Your task to perform on an android device: Open CNN.com Image 0: 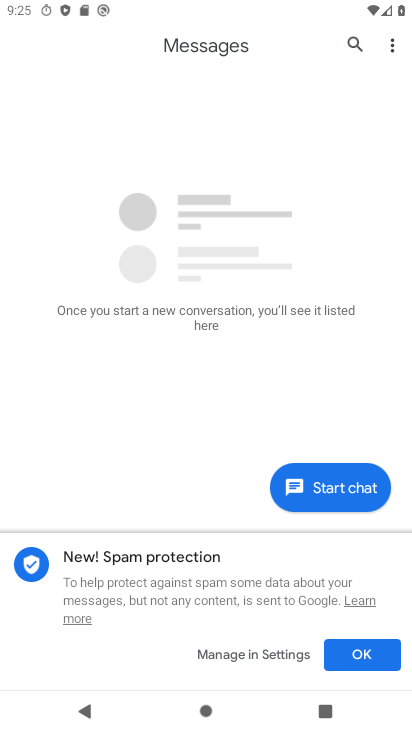
Step 0: press home button
Your task to perform on an android device: Open CNN.com Image 1: 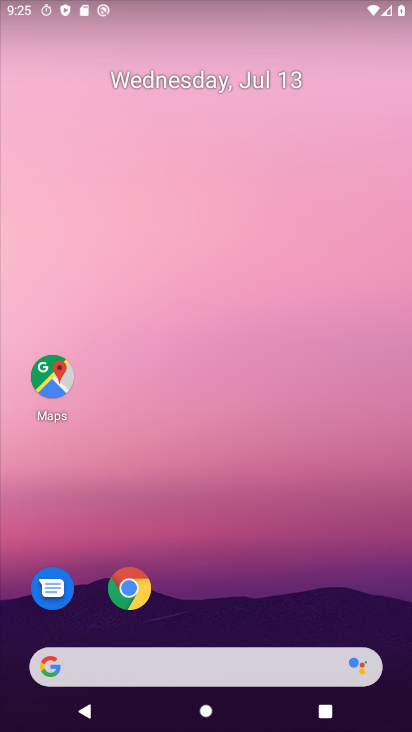
Step 1: click (128, 587)
Your task to perform on an android device: Open CNN.com Image 2: 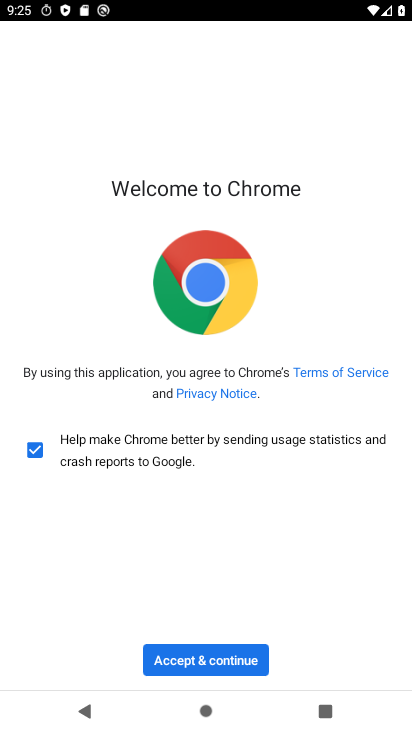
Step 2: click (200, 663)
Your task to perform on an android device: Open CNN.com Image 3: 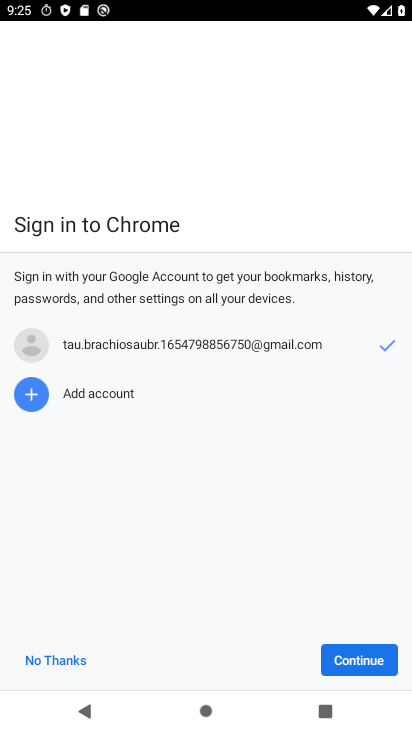
Step 3: click (361, 653)
Your task to perform on an android device: Open CNN.com Image 4: 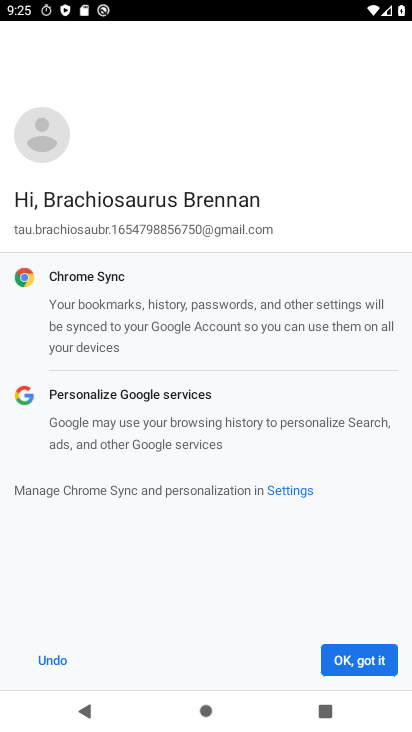
Step 4: click (361, 653)
Your task to perform on an android device: Open CNN.com Image 5: 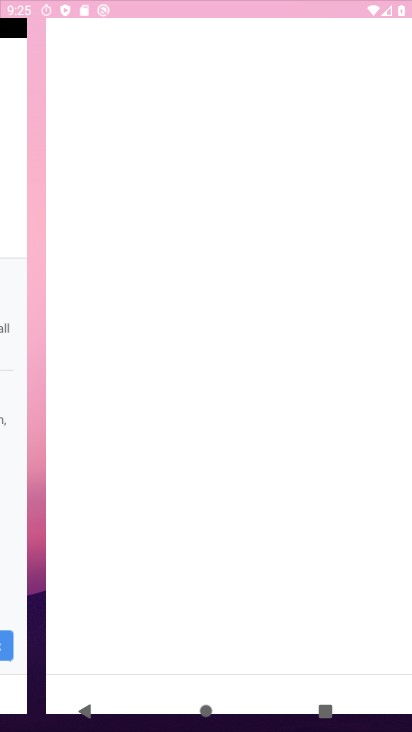
Step 5: click (361, 653)
Your task to perform on an android device: Open CNN.com Image 6: 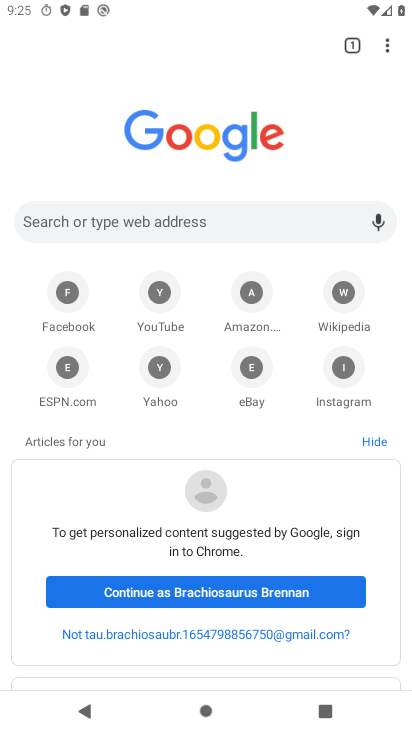
Step 6: click (207, 44)
Your task to perform on an android device: Open CNN.com Image 7: 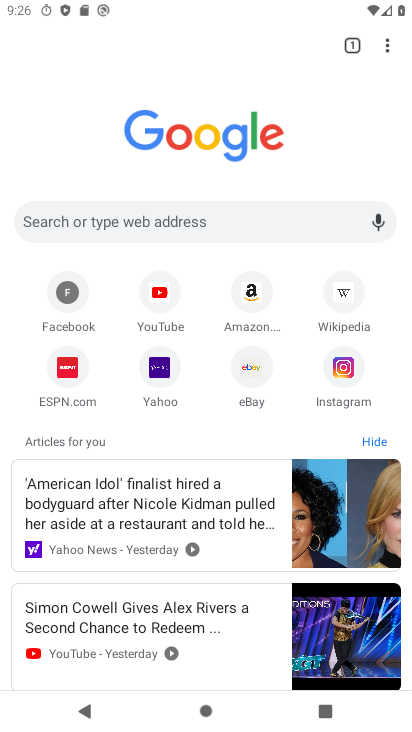
Step 7: type "CNN.com"
Your task to perform on an android device: Open CNN.com Image 8: 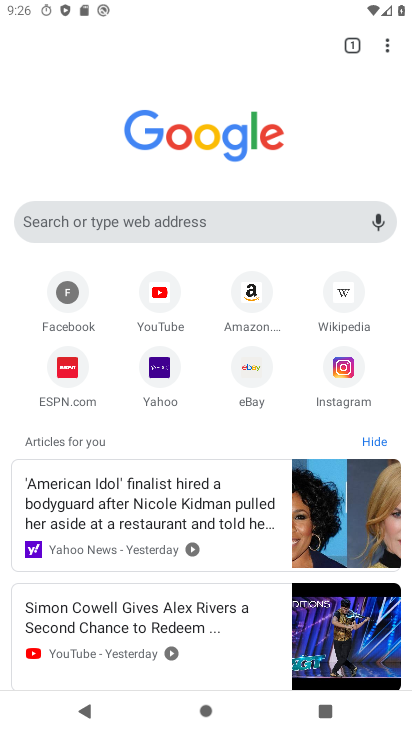
Step 8: click (239, 238)
Your task to perform on an android device: Open CNN.com Image 9: 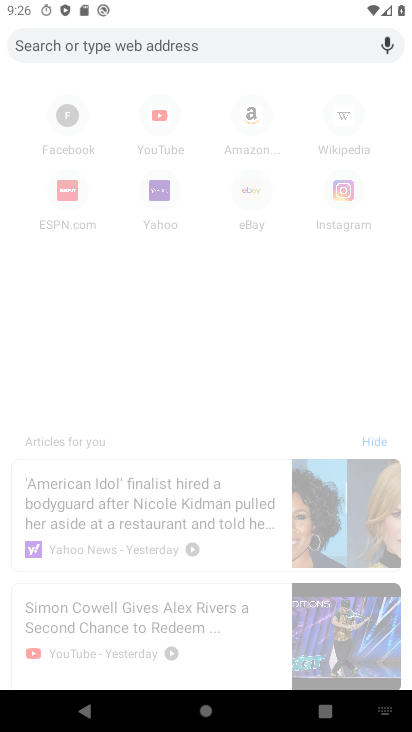
Step 9: type "CNN.com"
Your task to perform on an android device: Open CNN.com Image 10: 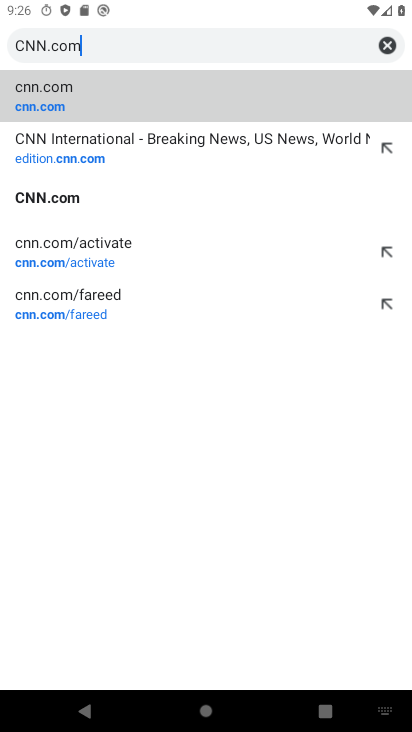
Step 10: click (124, 105)
Your task to perform on an android device: Open CNN.com Image 11: 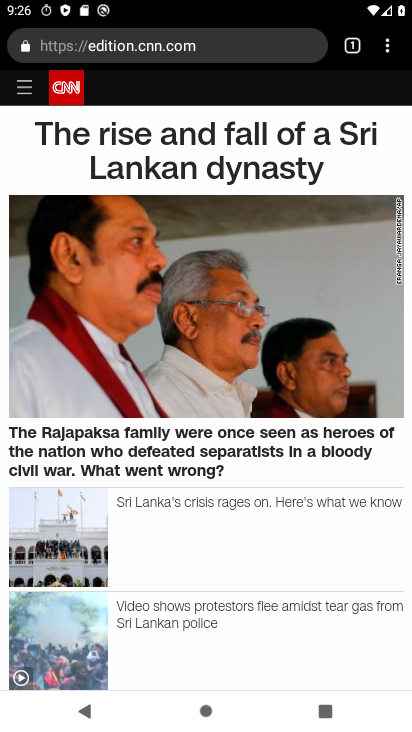
Step 11: task complete